Your task to perform on an android device: Go to Google Image 0: 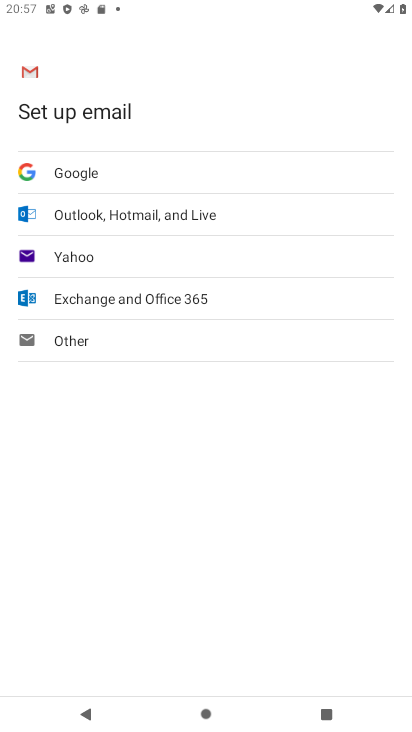
Step 0: press home button
Your task to perform on an android device: Go to Google Image 1: 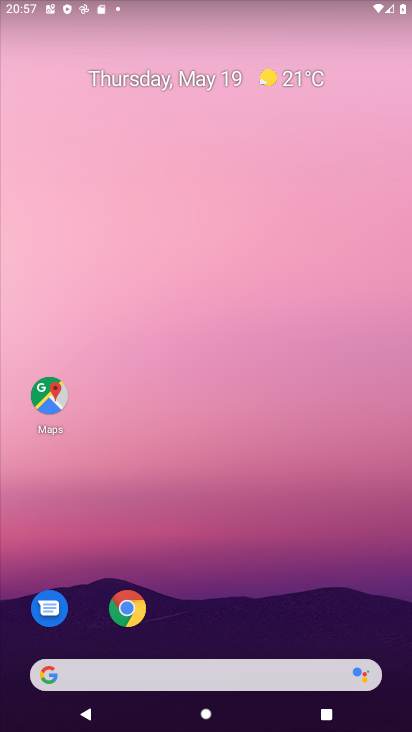
Step 1: drag from (245, 558) to (209, 43)
Your task to perform on an android device: Go to Google Image 2: 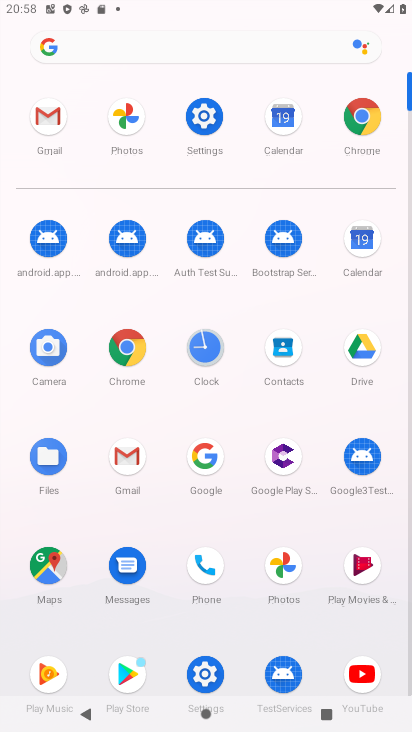
Step 2: click (203, 450)
Your task to perform on an android device: Go to Google Image 3: 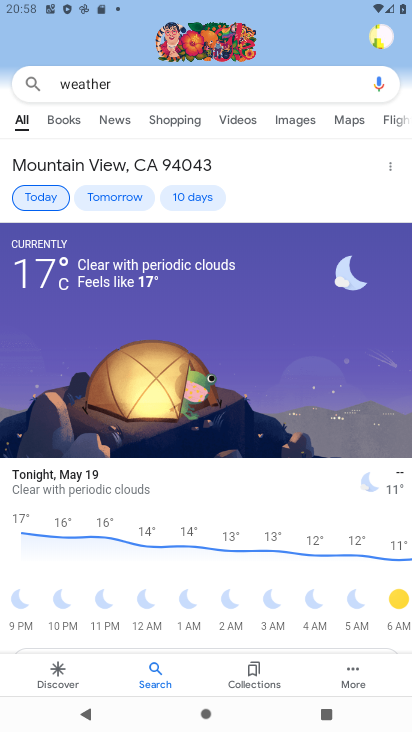
Step 3: task complete